Your task to perform on an android device: Go to Yahoo.com Image 0: 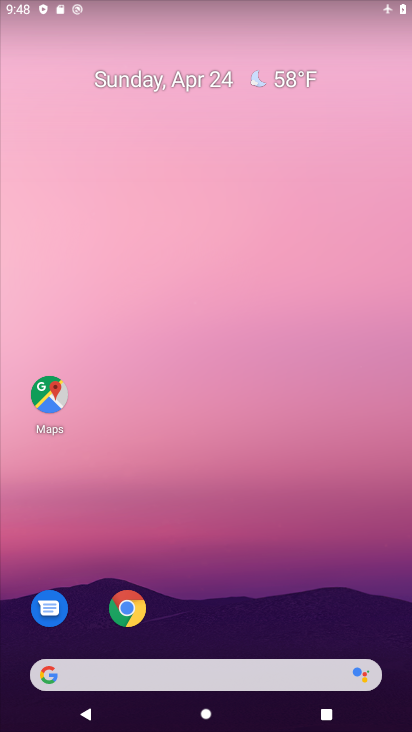
Step 0: drag from (263, 479) to (302, 109)
Your task to perform on an android device: Go to Yahoo.com Image 1: 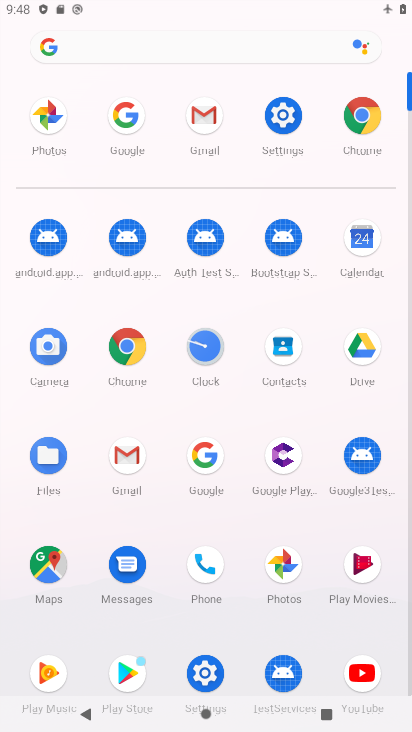
Step 1: click (378, 108)
Your task to perform on an android device: Go to Yahoo.com Image 2: 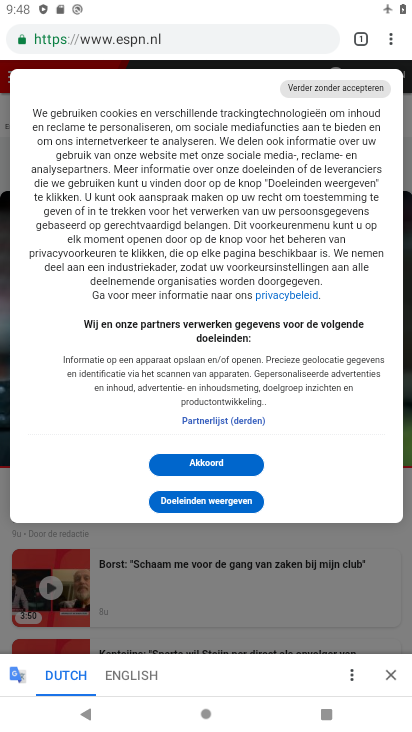
Step 2: click (213, 29)
Your task to perform on an android device: Go to Yahoo.com Image 3: 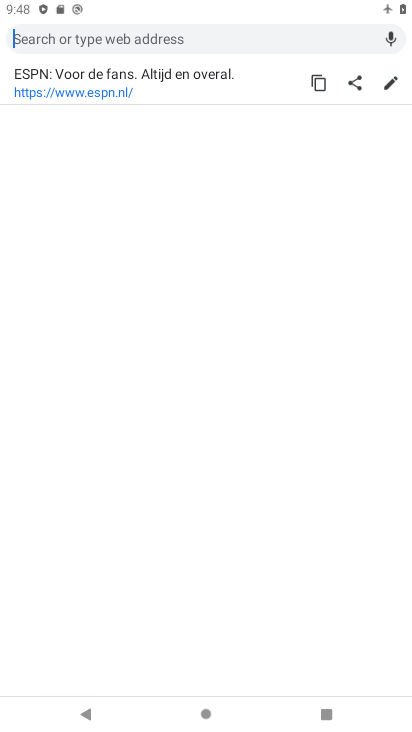
Step 3: click (208, 39)
Your task to perform on an android device: Go to Yahoo.com Image 4: 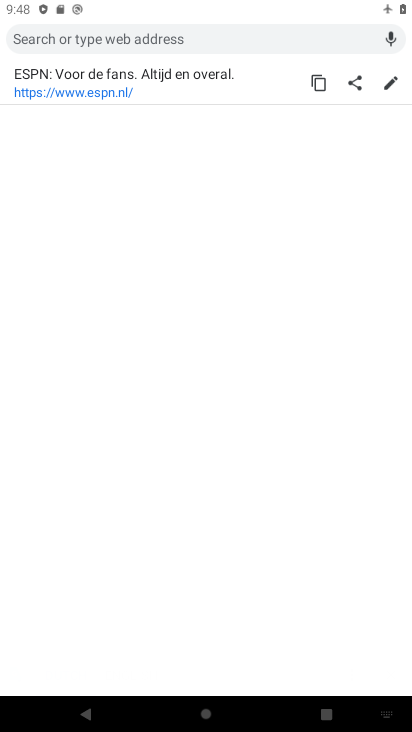
Step 4: click (208, 39)
Your task to perform on an android device: Go to Yahoo.com Image 5: 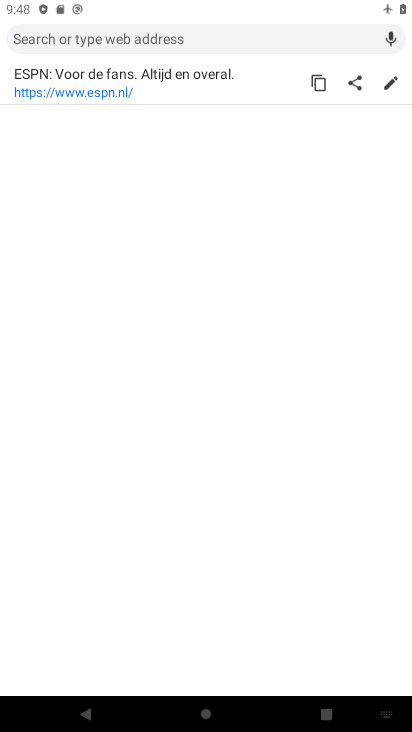
Step 5: type "yahoo.com"
Your task to perform on an android device: Go to Yahoo.com Image 6: 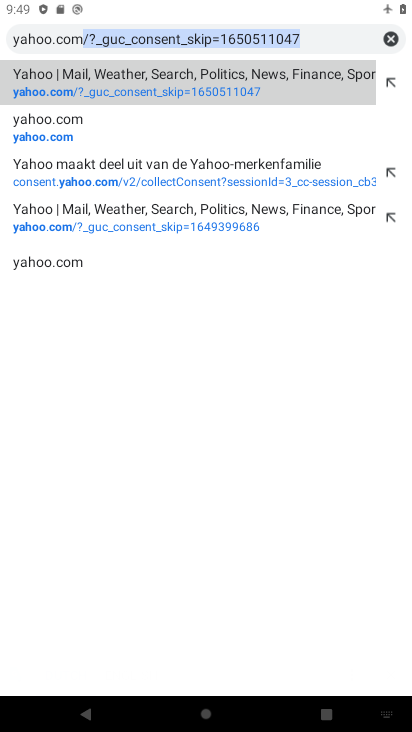
Step 6: click (334, 36)
Your task to perform on an android device: Go to Yahoo.com Image 7: 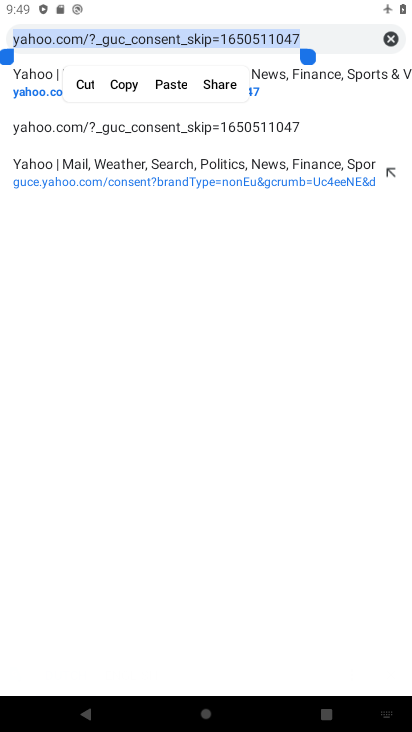
Step 7: click (318, 30)
Your task to perform on an android device: Go to Yahoo.com Image 8: 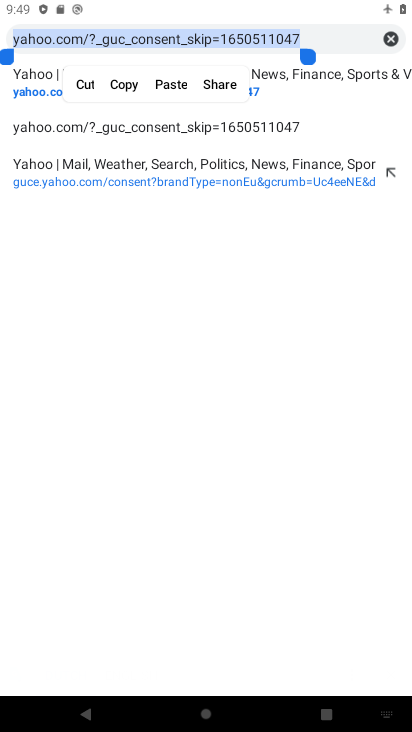
Step 8: click (318, 30)
Your task to perform on an android device: Go to Yahoo.com Image 9: 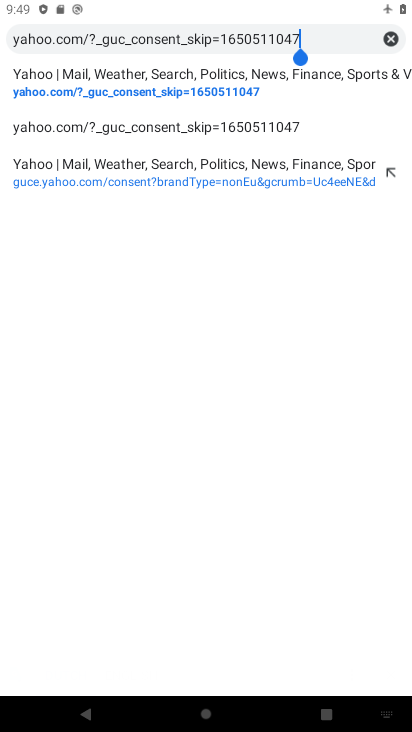
Step 9: click (317, 46)
Your task to perform on an android device: Go to Yahoo.com Image 10: 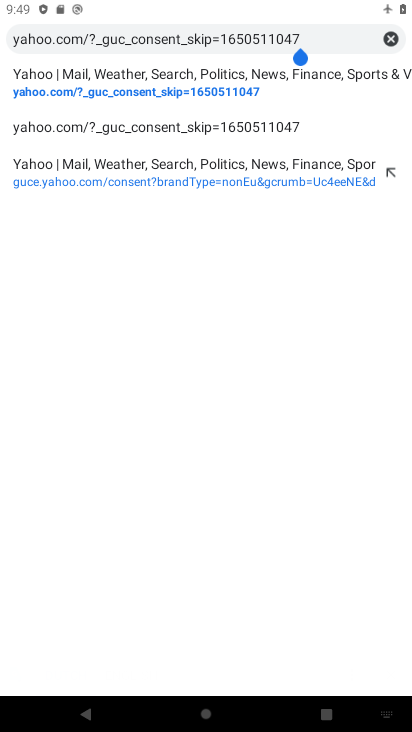
Step 10: click (314, 42)
Your task to perform on an android device: Go to Yahoo.com Image 11: 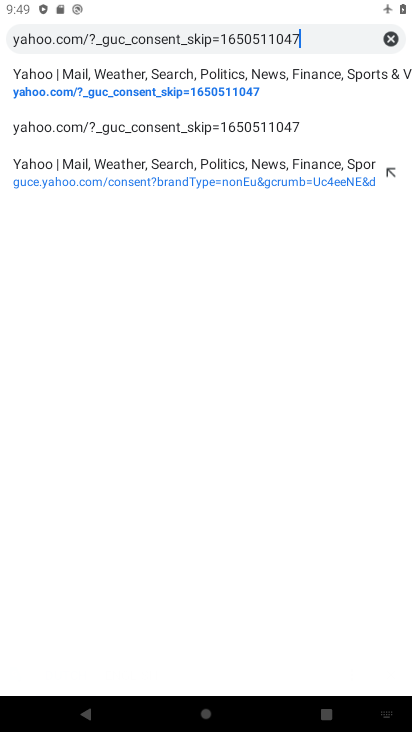
Step 11: click (79, 99)
Your task to perform on an android device: Go to Yahoo.com Image 12: 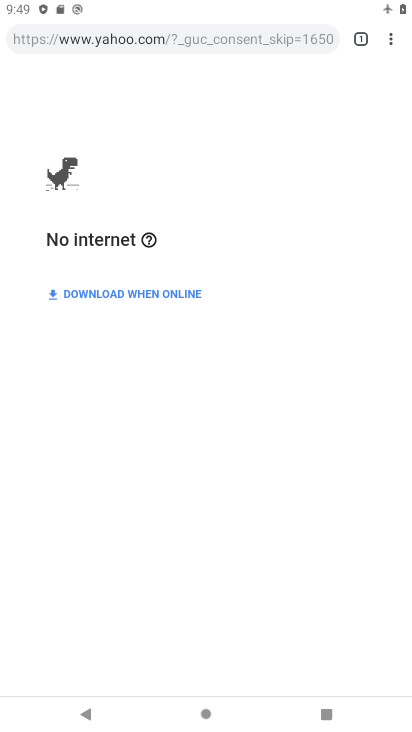
Step 12: task complete